Your task to perform on an android device: Search for corsair k70 on costco, select the first entry, and add it to the cart. Image 0: 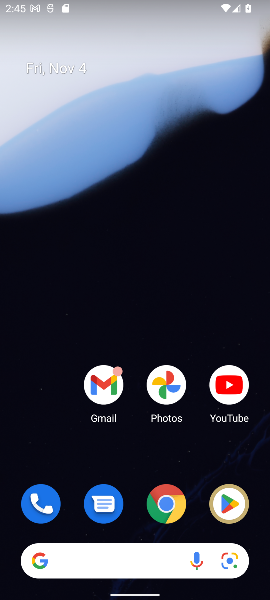
Step 0: click (168, 499)
Your task to perform on an android device: Search for corsair k70 on costco, select the first entry, and add it to the cart. Image 1: 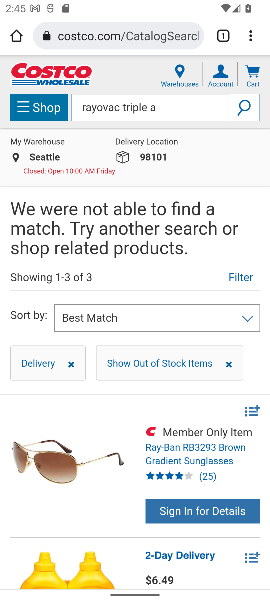
Step 1: click (141, 102)
Your task to perform on an android device: Search for corsair k70 on costco, select the first entry, and add it to the cart. Image 2: 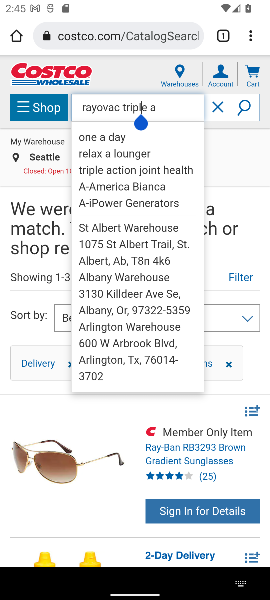
Step 2: click (215, 108)
Your task to perform on an android device: Search for corsair k70 on costco, select the first entry, and add it to the cart. Image 3: 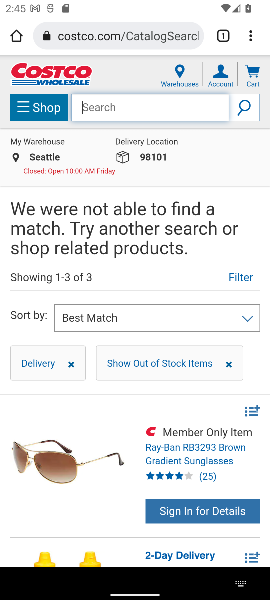
Step 3: type "corsair k70"
Your task to perform on an android device: Search for corsair k70 on costco, select the first entry, and add it to the cart. Image 4: 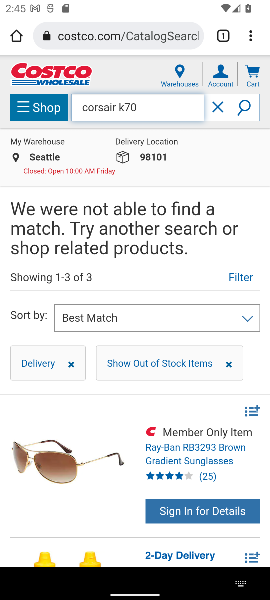
Step 4: click (239, 109)
Your task to perform on an android device: Search for corsair k70 on costco, select the first entry, and add it to the cart. Image 5: 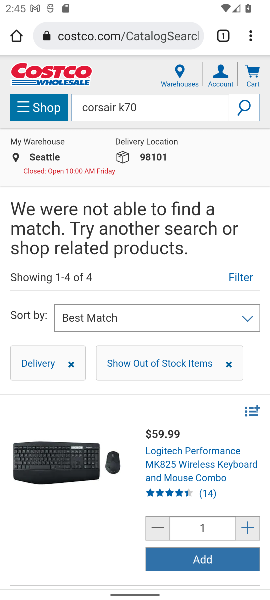
Step 5: task complete